Your task to perform on an android device: Search for vegetarian restaurants on Maps Image 0: 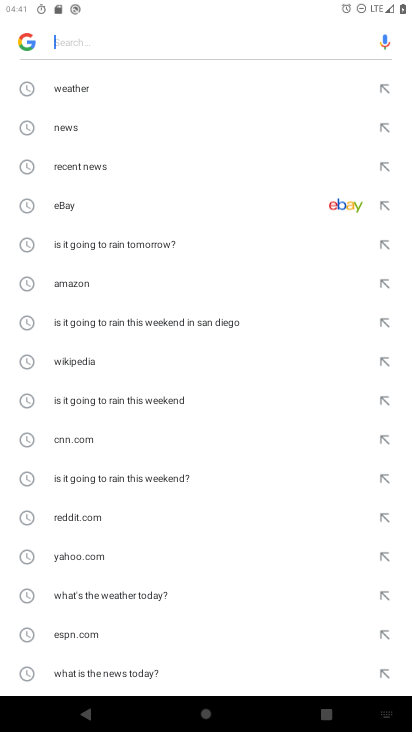
Step 0: press home button
Your task to perform on an android device: Search for vegetarian restaurants on Maps Image 1: 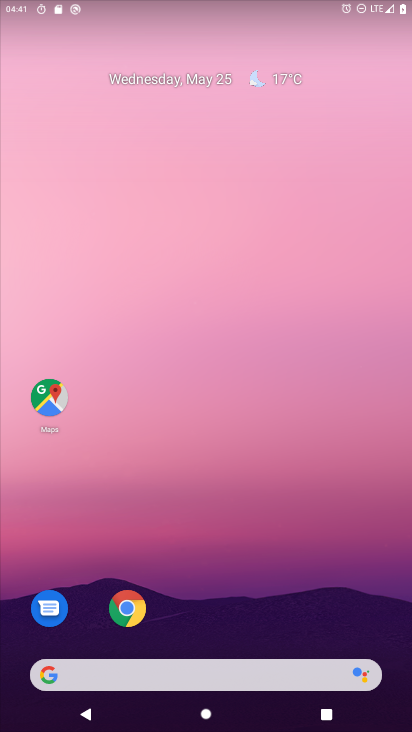
Step 1: click (52, 400)
Your task to perform on an android device: Search for vegetarian restaurants on Maps Image 2: 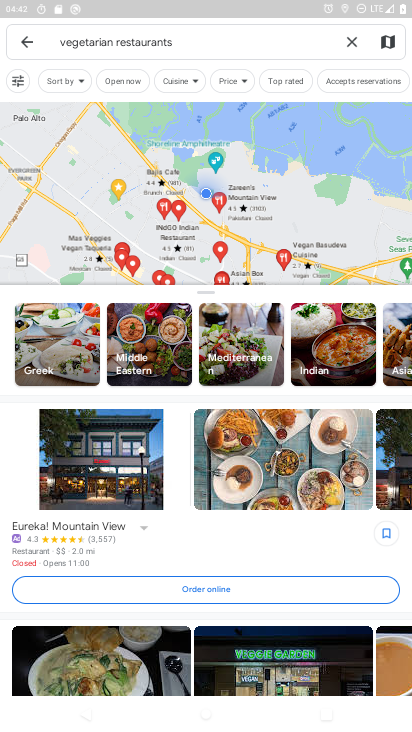
Step 2: task complete